Your task to perform on an android device: open the mobile data screen to see how much data has been used Image 0: 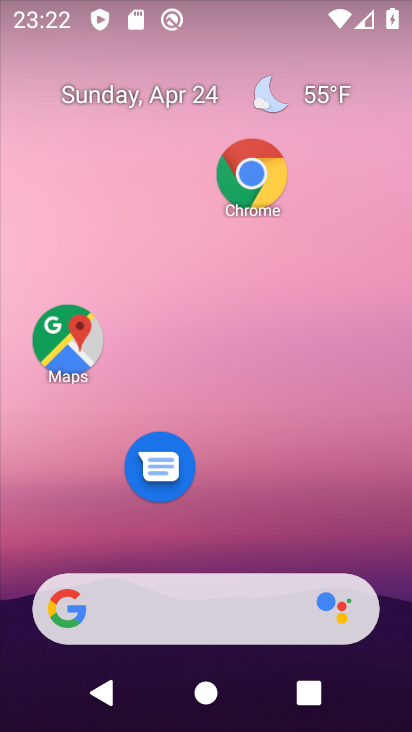
Step 0: drag from (321, 464) to (299, 27)
Your task to perform on an android device: open the mobile data screen to see how much data has been used Image 1: 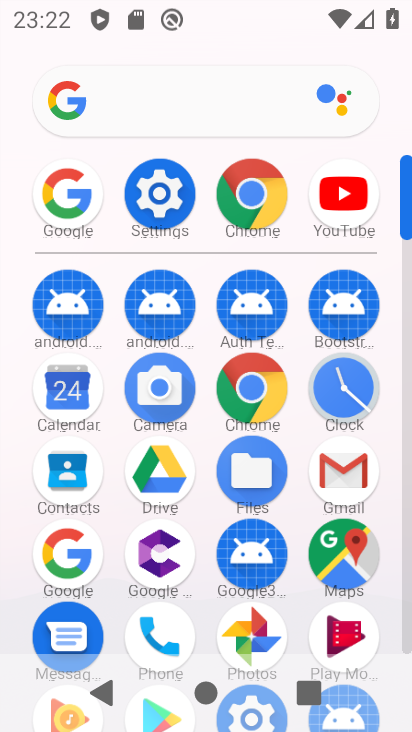
Step 1: click (158, 201)
Your task to perform on an android device: open the mobile data screen to see how much data has been used Image 2: 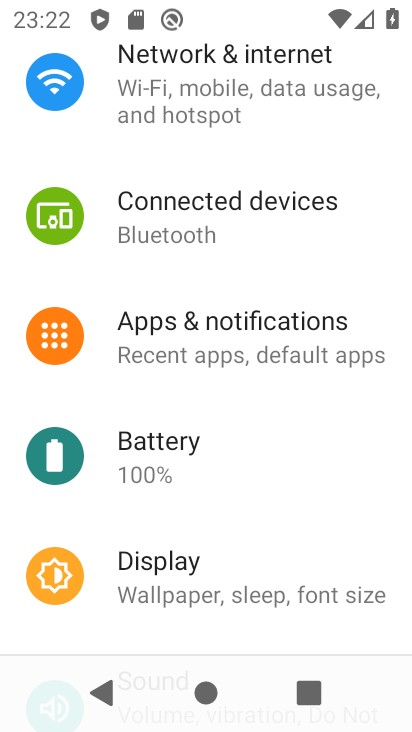
Step 2: click (233, 97)
Your task to perform on an android device: open the mobile data screen to see how much data has been used Image 3: 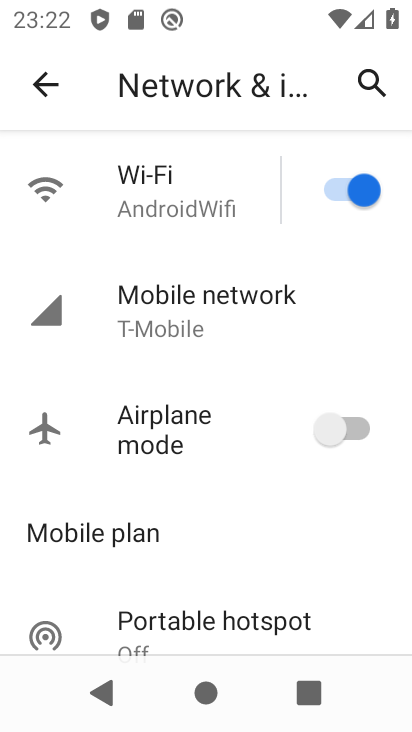
Step 3: click (198, 309)
Your task to perform on an android device: open the mobile data screen to see how much data has been used Image 4: 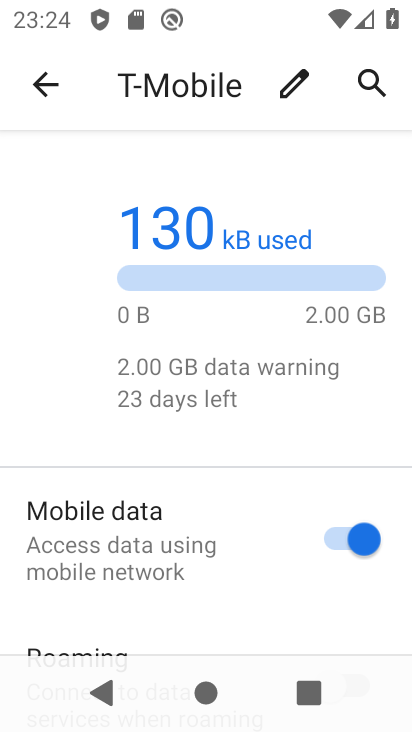
Step 4: task complete